Your task to perform on an android device: Open the web browser Image 0: 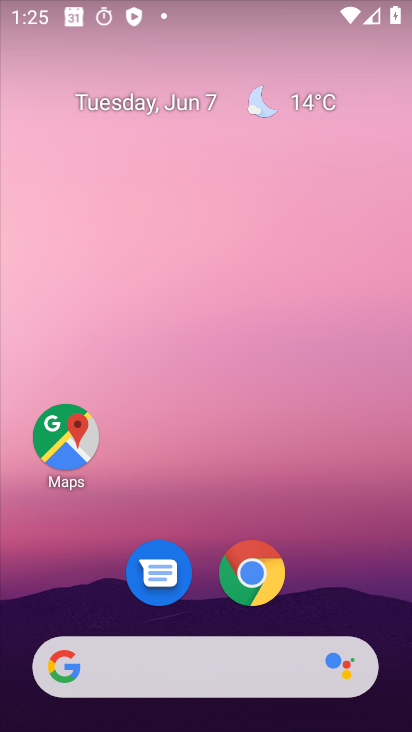
Step 0: click (248, 564)
Your task to perform on an android device: Open the web browser Image 1: 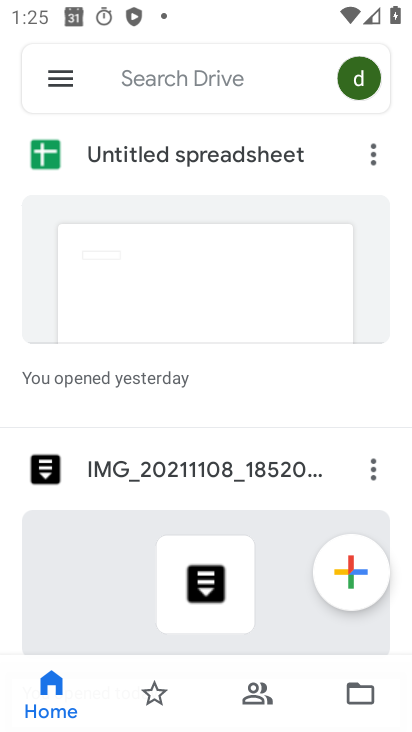
Step 1: press home button
Your task to perform on an android device: Open the web browser Image 2: 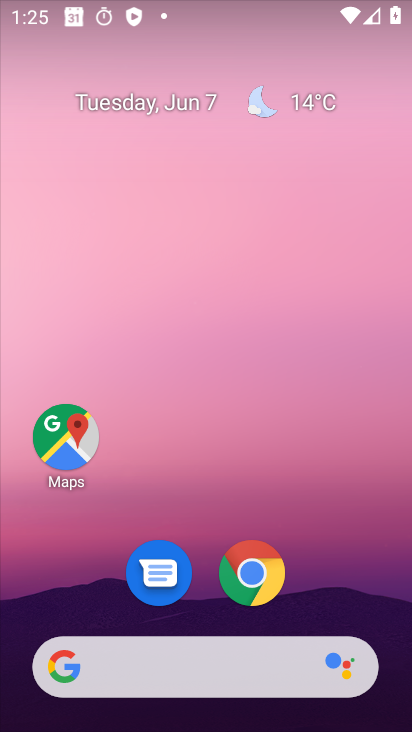
Step 2: click (250, 567)
Your task to perform on an android device: Open the web browser Image 3: 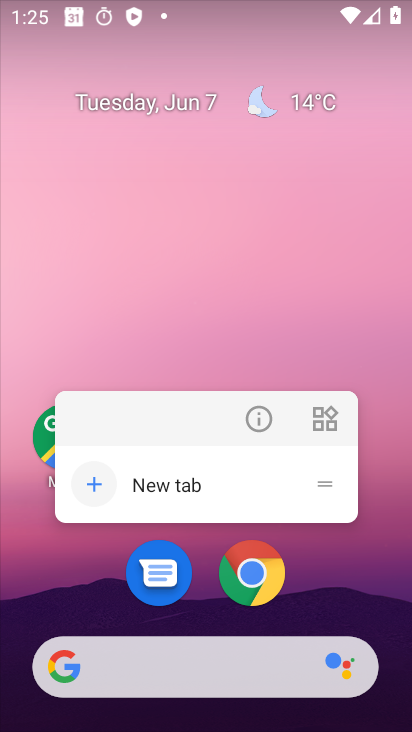
Step 3: click (250, 567)
Your task to perform on an android device: Open the web browser Image 4: 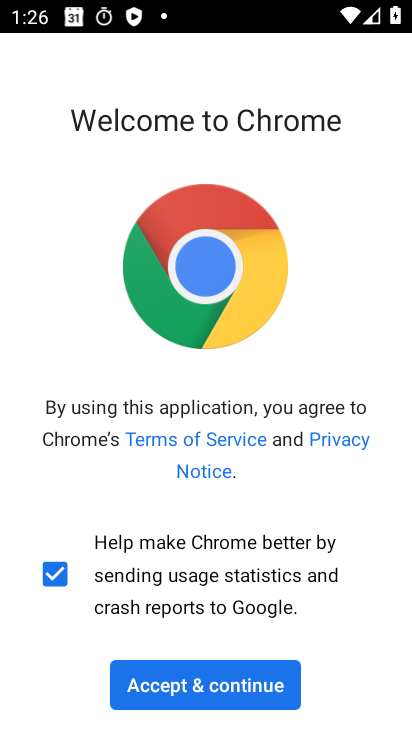
Step 4: click (193, 682)
Your task to perform on an android device: Open the web browser Image 5: 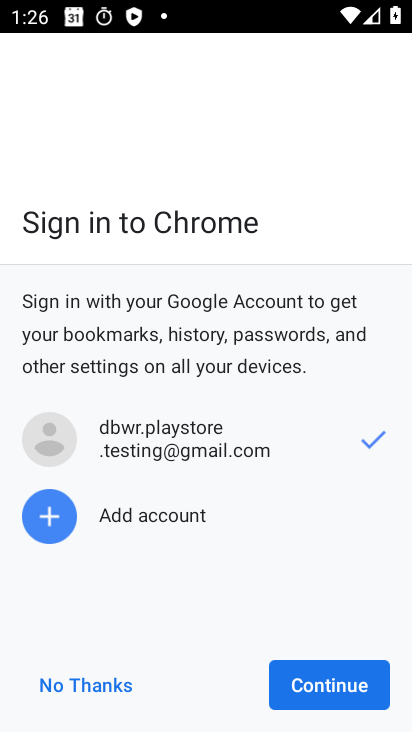
Step 5: click (339, 681)
Your task to perform on an android device: Open the web browser Image 6: 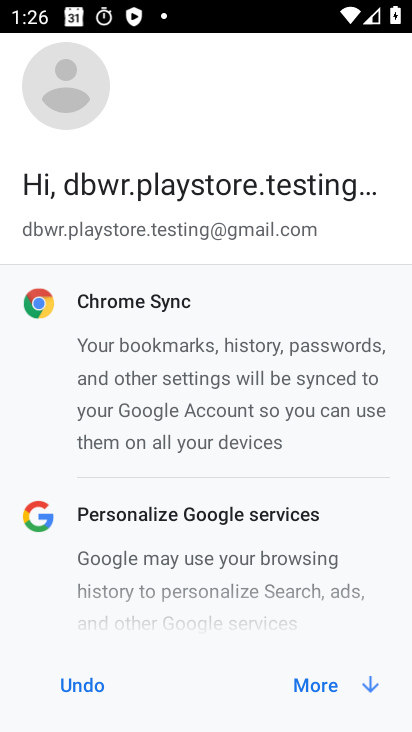
Step 6: drag from (268, 565) to (274, 95)
Your task to perform on an android device: Open the web browser Image 7: 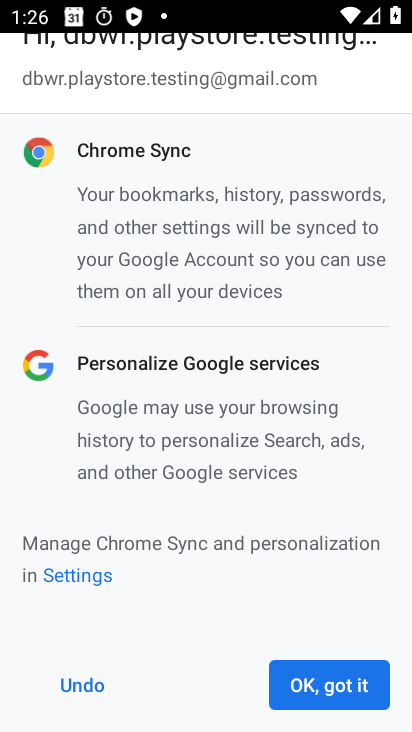
Step 7: click (326, 684)
Your task to perform on an android device: Open the web browser Image 8: 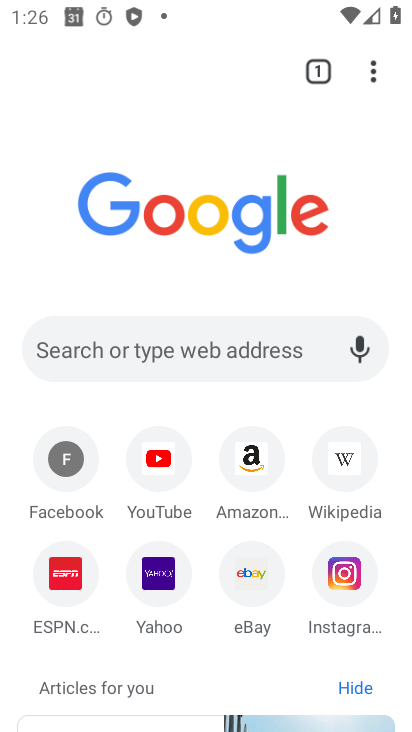
Step 8: task complete